Your task to perform on an android device: turn off priority inbox in the gmail app Image 0: 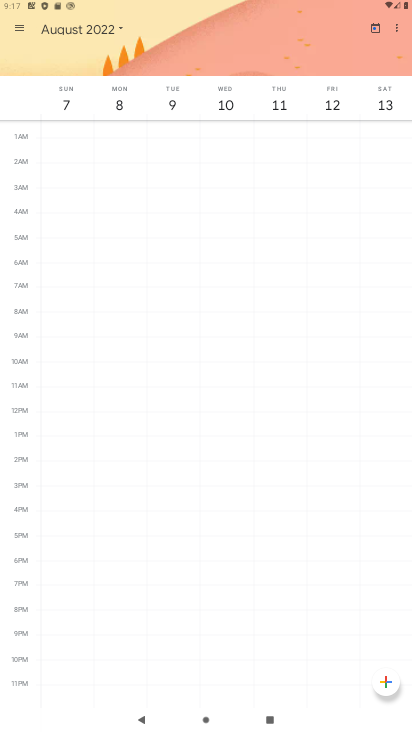
Step 0: press home button
Your task to perform on an android device: turn off priority inbox in the gmail app Image 1: 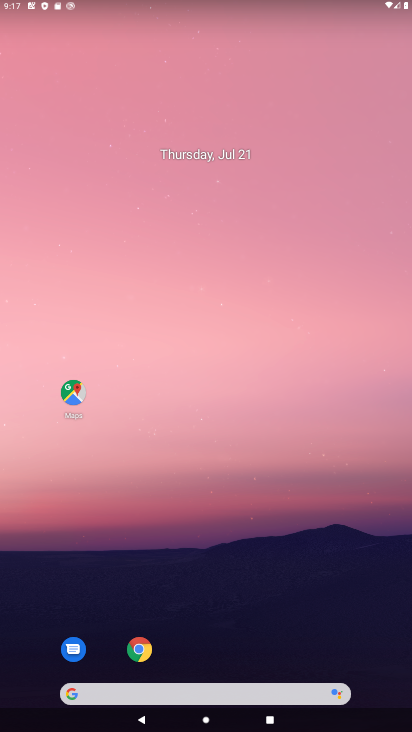
Step 1: drag from (219, 628) to (266, 64)
Your task to perform on an android device: turn off priority inbox in the gmail app Image 2: 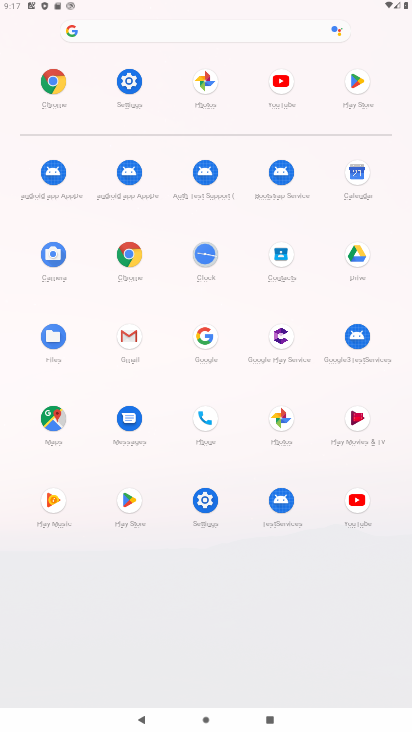
Step 2: click (130, 338)
Your task to perform on an android device: turn off priority inbox in the gmail app Image 3: 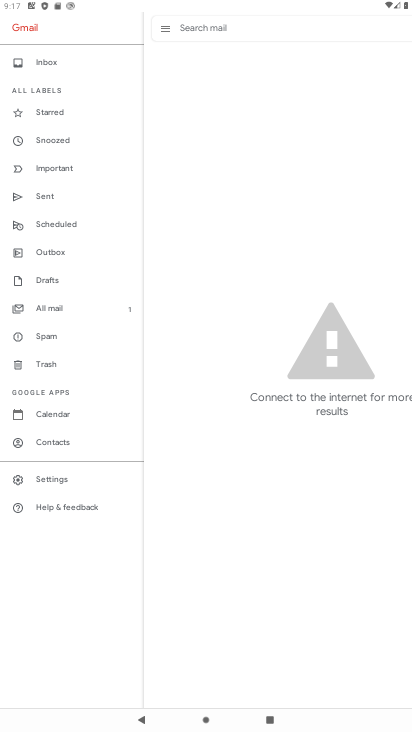
Step 3: click (56, 483)
Your task to perform on an android device: turn off priority inbox in the gmail app Image 4: 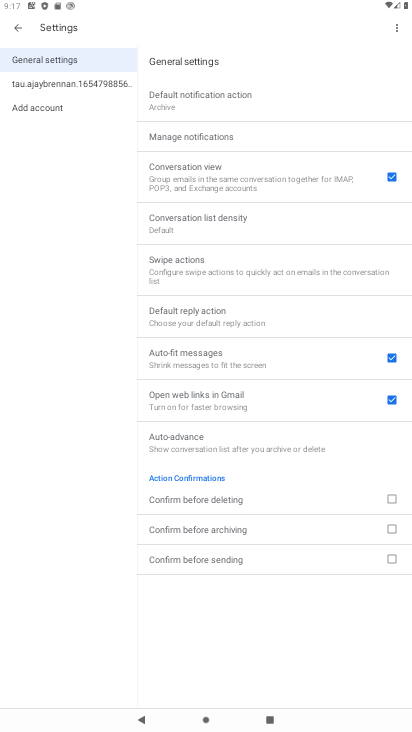
Step 4: click (85, 88)
Your task to perform on an android device: turn off priority inbox in the gmail app Image 5: 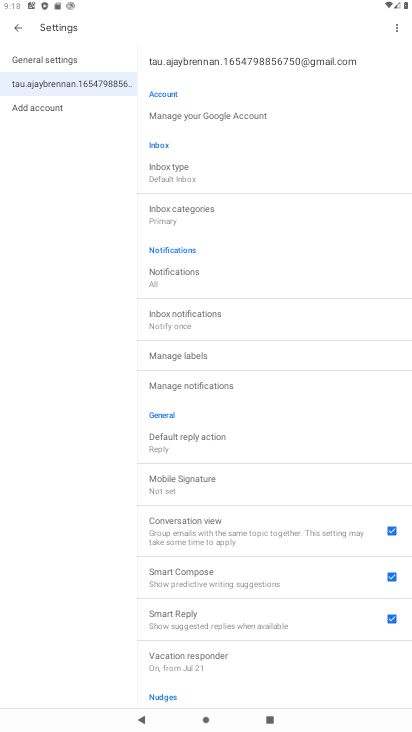
Step 5: click (185, 177)
Your task to perform on an android device: turn off priority inbox in the gmail app Image 6: 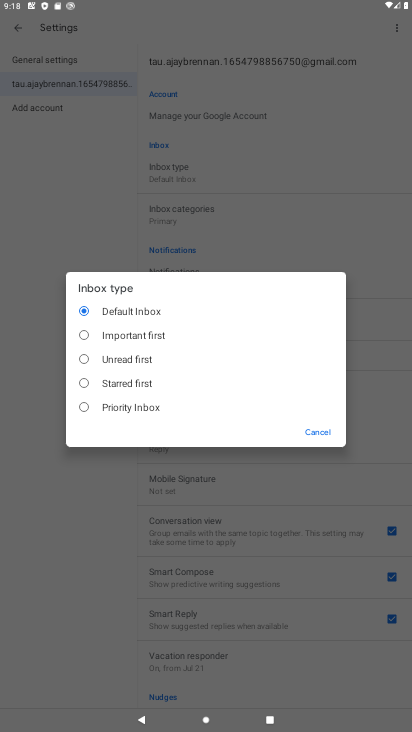
Step 6: click (139, 335)
Your task to perform on an android device: turn off priority inbox in the gmail app Image 7: 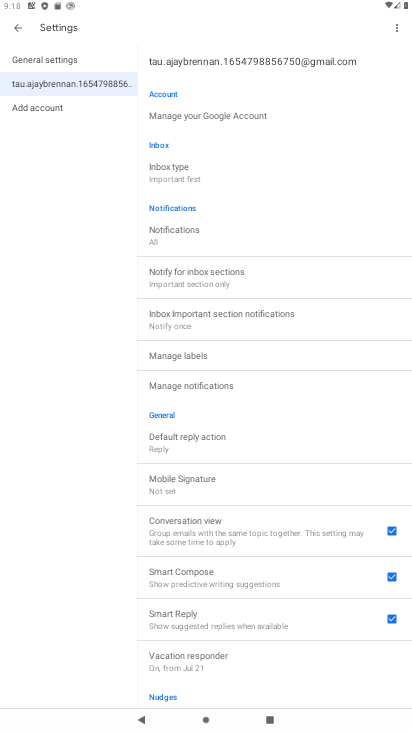
Step 7: task complete